Your task to perform on an android device: Open calendar and show me the first week of next month Image 0: 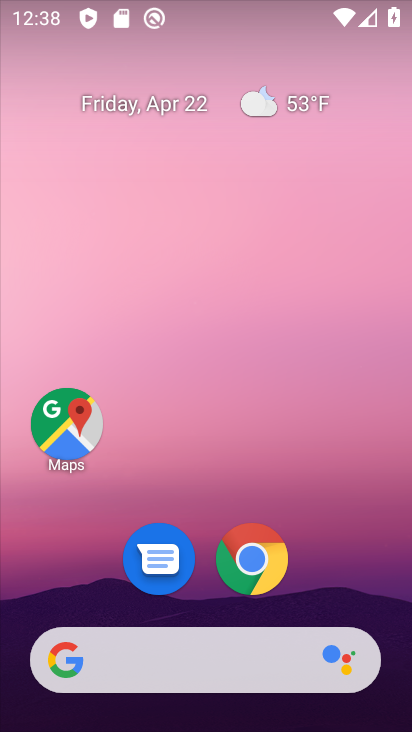
Step 0: drag from (197, 705) to (190, 137)
Your task to perform on an android device: Open calendar and show me the first week of next month Image 1: 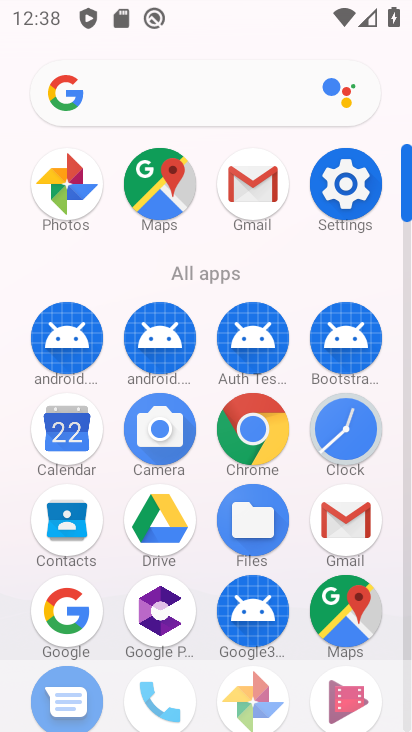
Step 1: click (67, 436)
Your task to perform on an android device: Open calendar and show me the first week of next month Image 2: 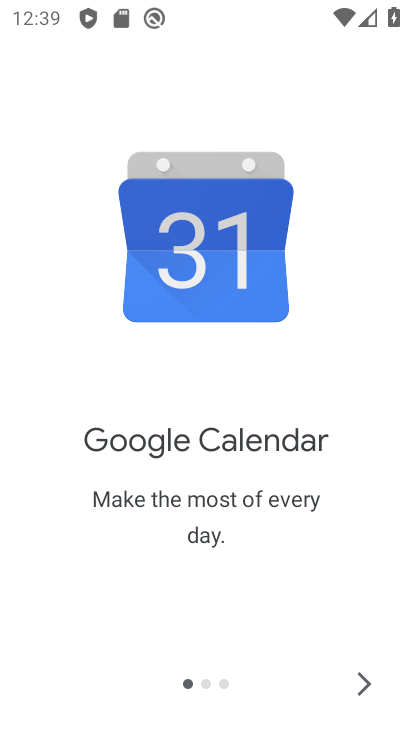
Step 2: click (359, 680)
Your task to perform on an android device: Open calendar and show me the first week of next month Image 3: 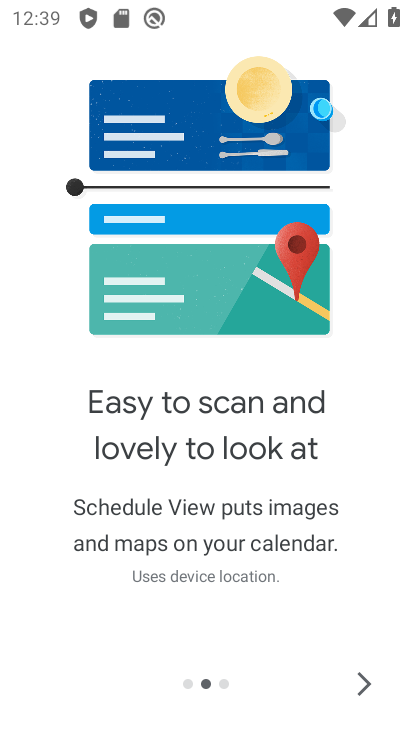
Step 3: click (356, 679)
Your task to perform on an android device: Open calendar and show me the first week of next month Image 4: 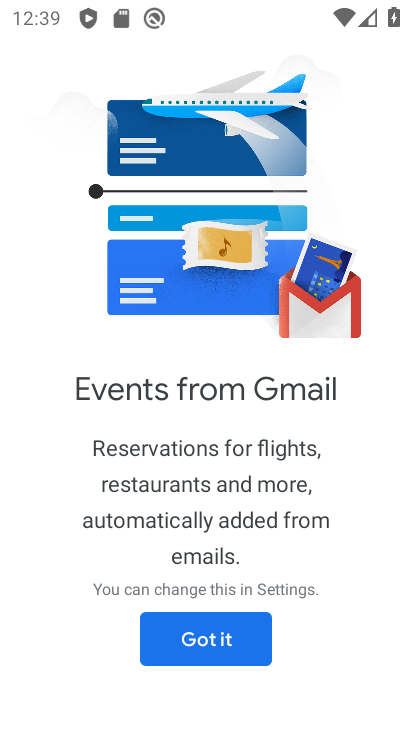
Step 4: click (200, 639)
Your task to perform on an android device: Open calendar and show me the first week of next month Image 5: 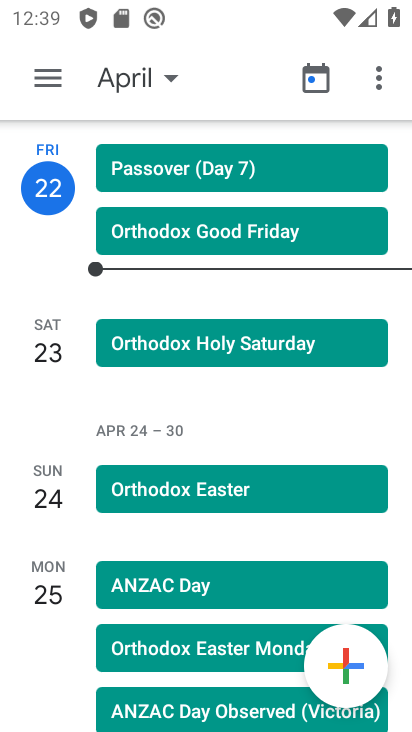
Step 5: click (137, 67)
Your task to perform on an android device: Open calendar and show me the first week of next month Image 6: 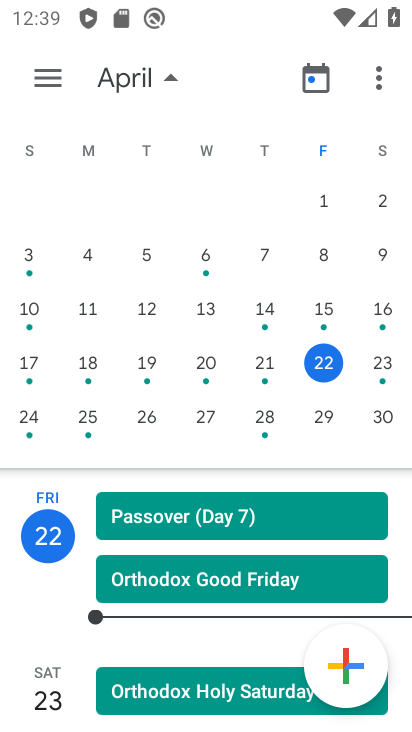
Step 6: drag from (351, 309) to (10, 261)
Your task to perform on an android device: Open calendar and show me the first week of next month Image 7: 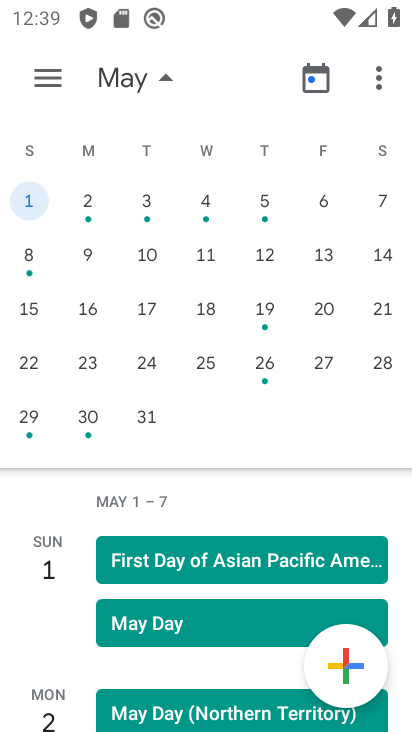
Step 7: click (86, 198)
Your task to perform on an android device: Open calendar and show me the first week of next month Image 8: 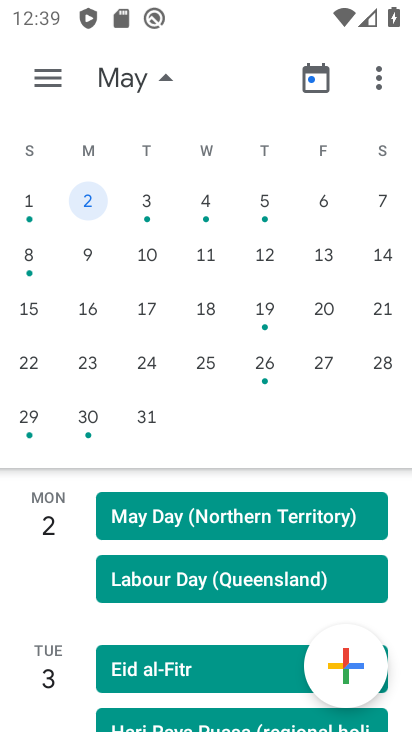
Step 8: task complete